Your task to perform on an android device: Go to CNN.com Image 0: 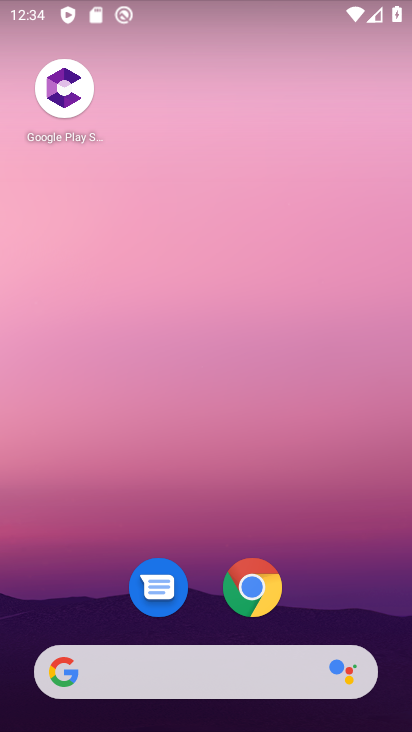
Step 0: click (259, 592)
Your task to perform on an android device: Go to CNN.com Image 1: 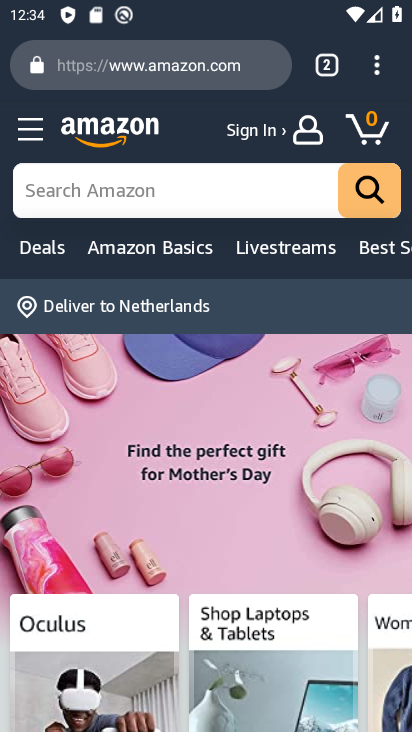
Step 1: click (378, 70)
Your task to perform on an android device: Go to CNN.com Image 2: 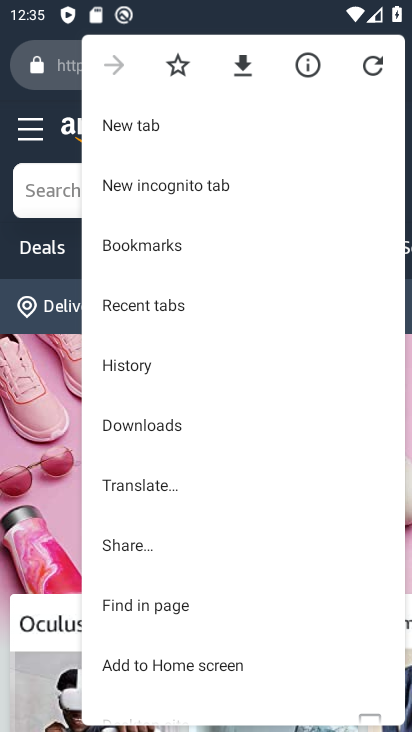
Step 2: click (129, 125)
Your task to perform on an android device: Go to CNN.com Image 3: 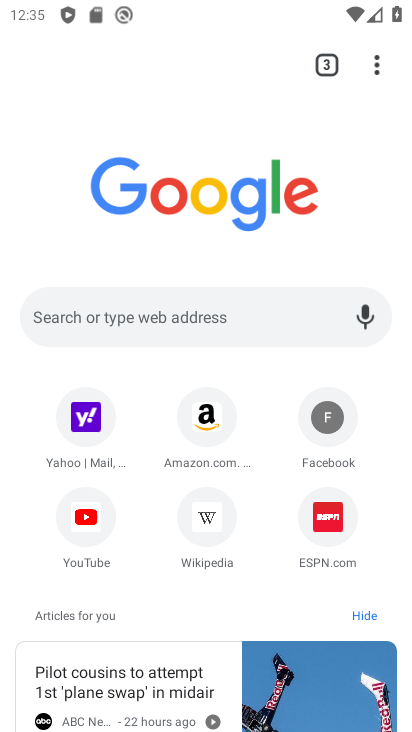
Step 3: click (184, 322)
Your task to perform on an android device: Go to CNN.com Image 4: 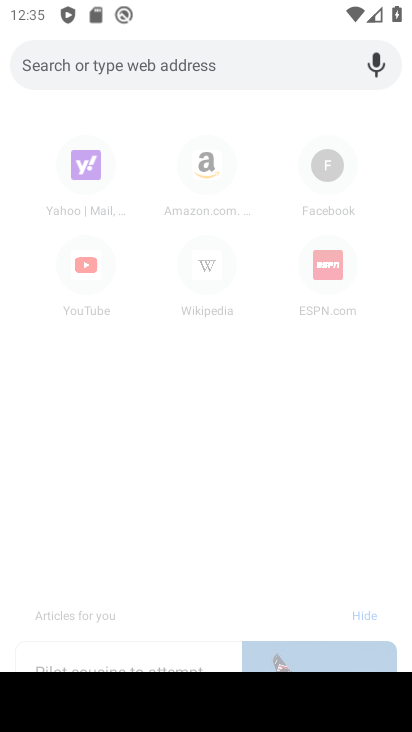
Step 4: type "CNN.com"
Your task to perform on an android device: Go to CNN.com Image 5: 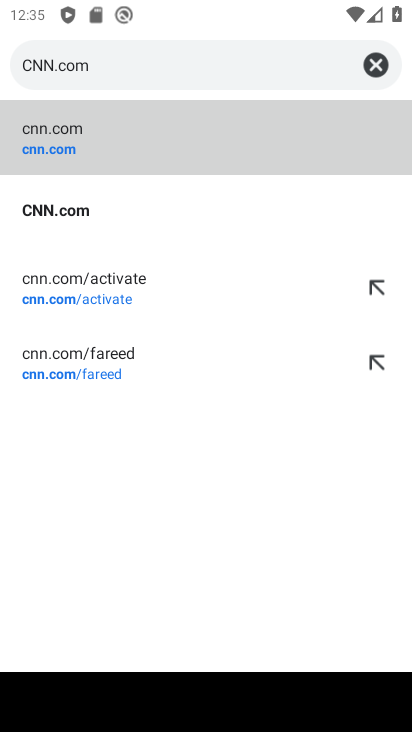
Step 5: click (62, 147)
Your task to perform on an android device: Go to CNN.com Image 6: 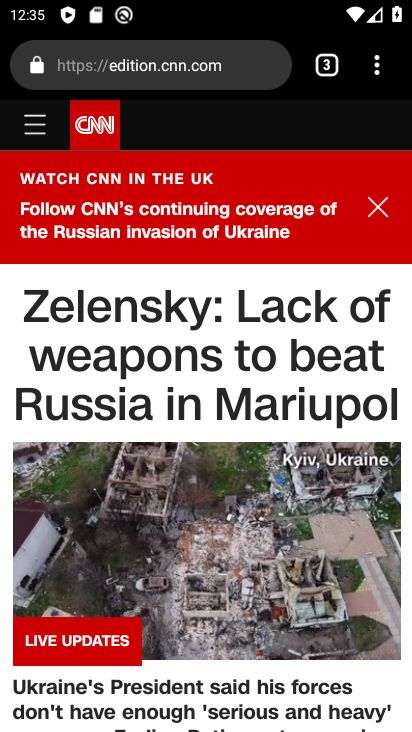
Step 6: click (58, 208)
Your task to perform on an android device: Go to CNN.com Image 7: 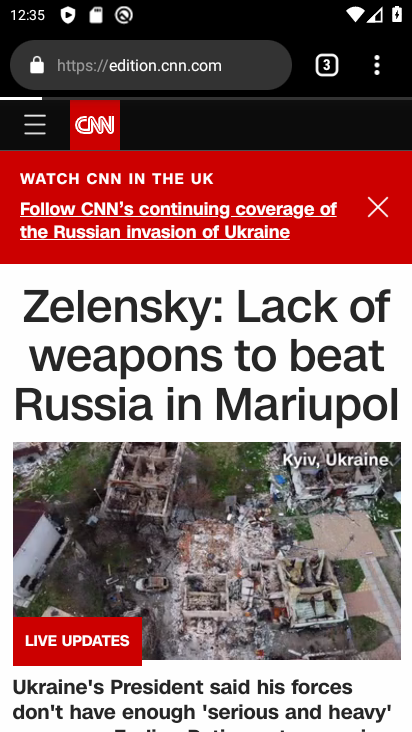
Step 7: task complete